Your task to perform on an android device: Open wifi settings Image 0: 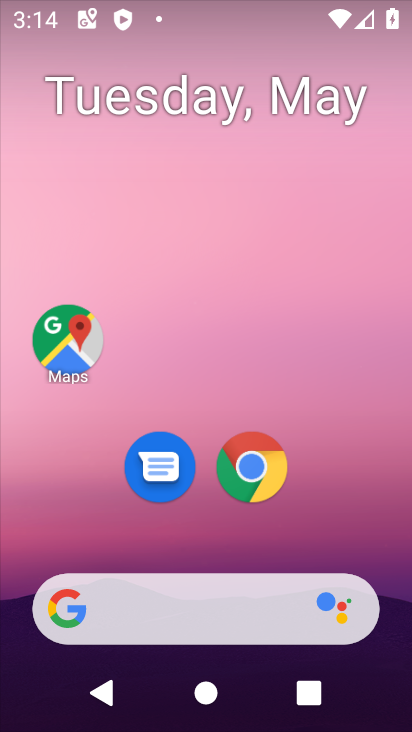
Step 0: drag from (363, 531) to (321, 122)
Your task to perform on an android device: Open wifi settings Image 1: 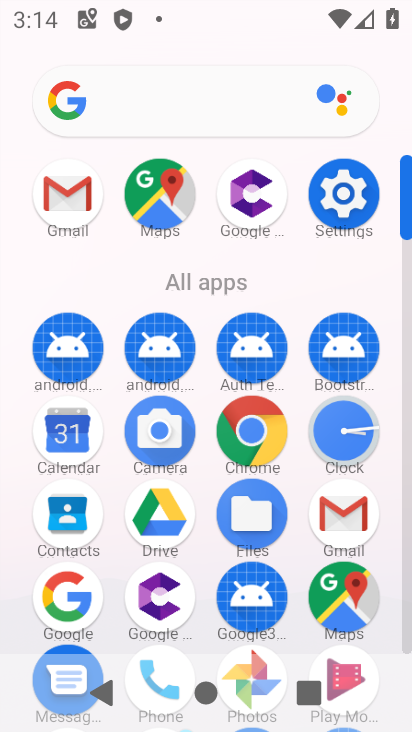
Step 1: click (345, 212)
Your task to perform on an android device: Open wifi settings Image 2: 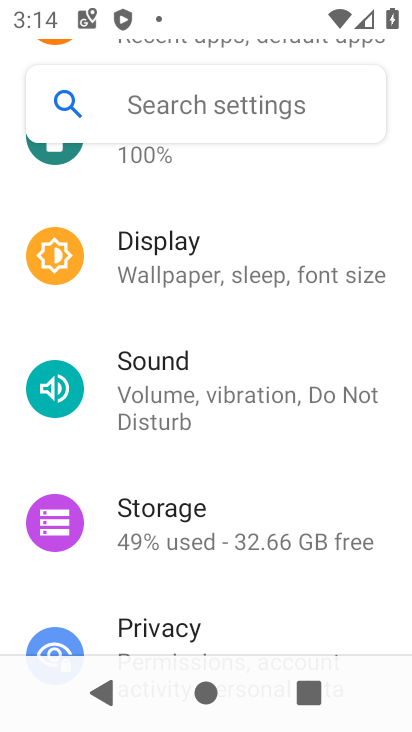
Step 2: drag from (326, 184) to (240, 696)
Your task to perform on an android device: Open wifi settings Image 3: 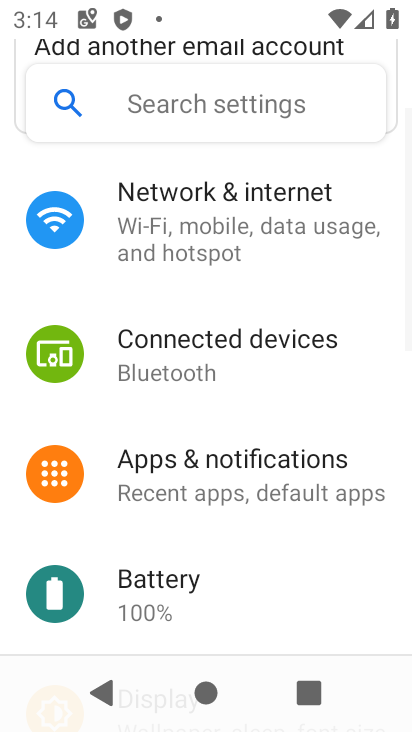
Step 3: click (184, 234)
Your task to perform on an android device: Open wifi settings Image 4: 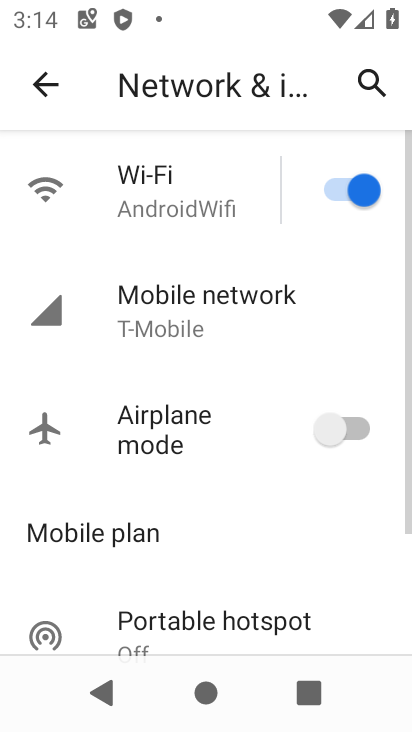
Step 4: click (170, 201)
Your task to perform on an android device: Open wifi settings Image 5: 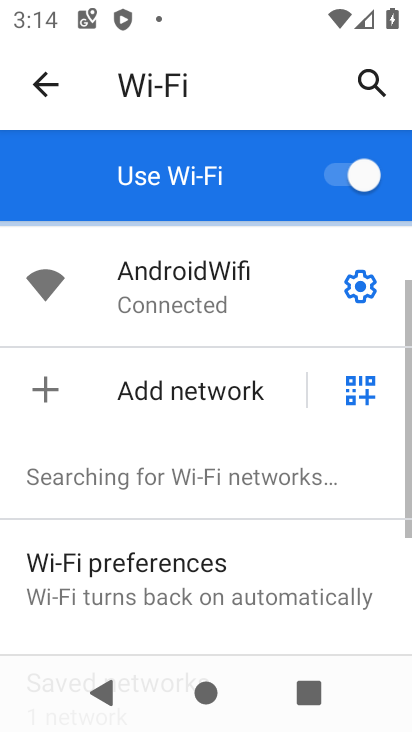
Step 5: click (357, 289)
Your task to perform on an android device: Open wifi settings Image 6: 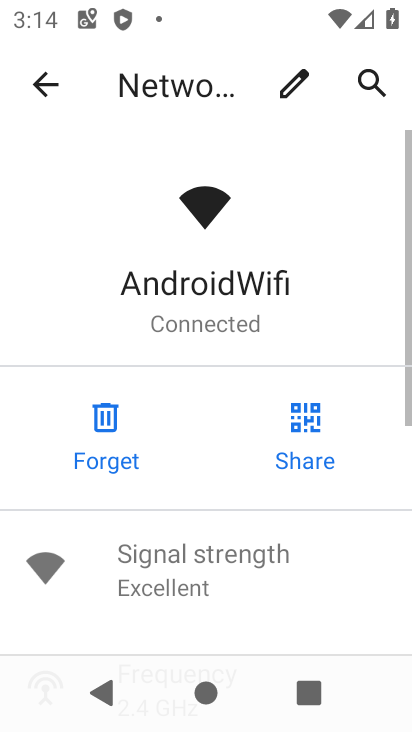
Step 6: task complete